Your task to perform on an android device: install app "Messenger Lite" Image 0: 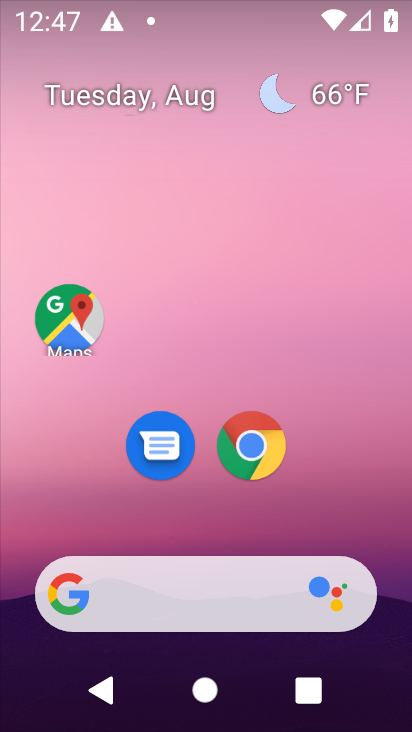
Step 0: drag from (348, 497) to (295, 76)
Your task to perform on an android device: install app "Messenger Lite" Image 1: 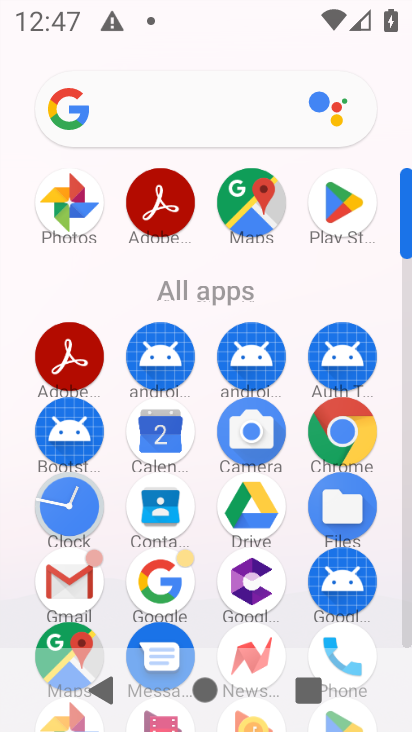
Step 1: click (328, 202)
Your task to perform on an android device: install app "Messenger Lite" Image 2: 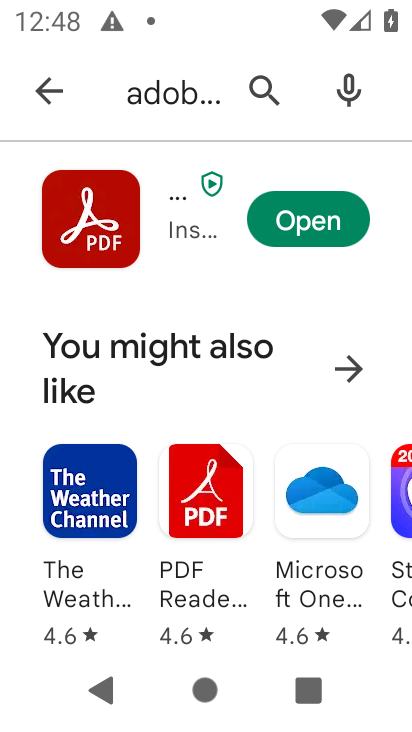
Step 2: click (258, 98)
Your task to perform on an android device: install app "Messenger Lite" Image 3: 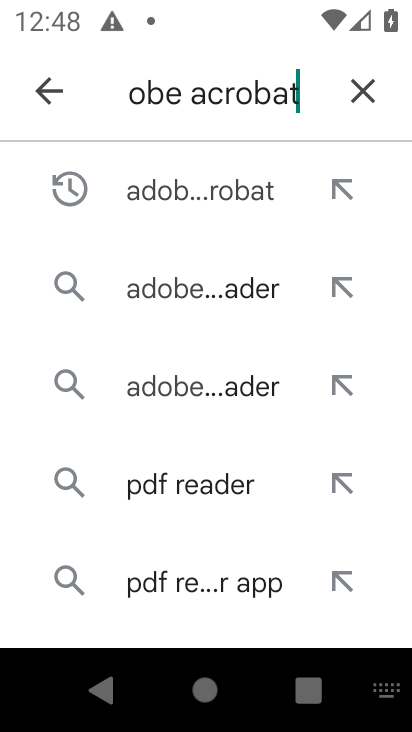
Step 3: click (353, 89)
Your task to perform on an android device: install app "Messenger Lite" Image 4: 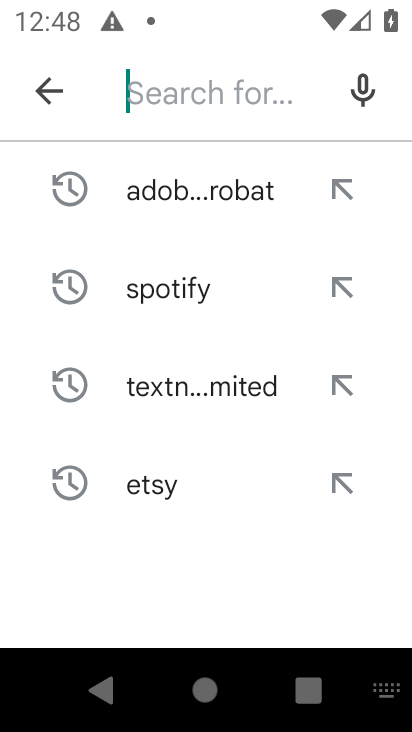
Step 4: type "messenger lite"
Your task to perform on an android device: install app "Messenger Lite" Image 5: 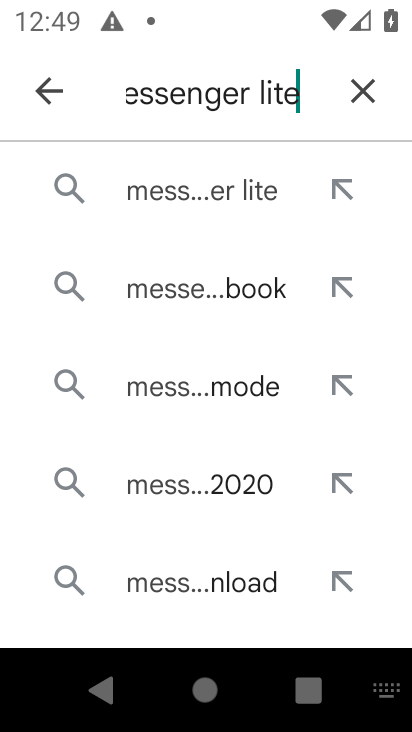
Step 5: click (195, 178)
Your task to perform on an android device: install app "Messenger Lite" Image 6: 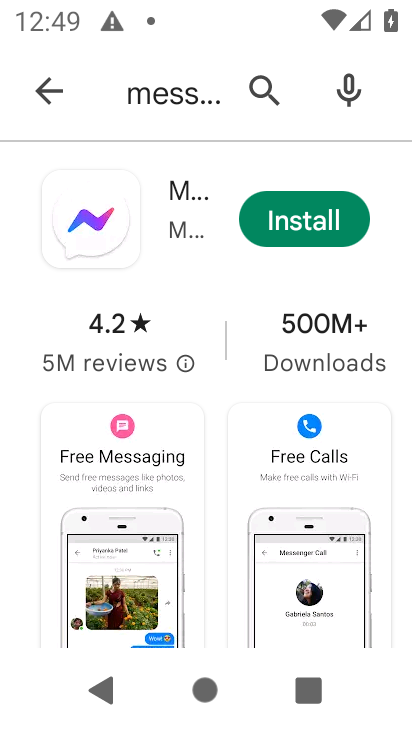
Step 6: click (257, 228)
Your task to perform on an android device: install app "Messenger Lite" Image 7: 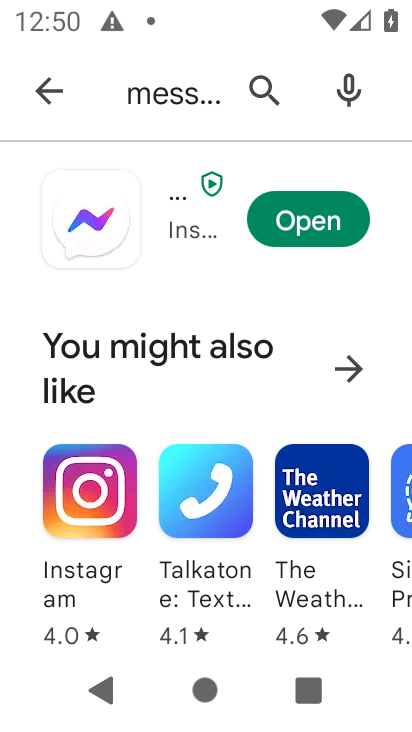
Step 7: click (257, 228)
Your task to perform on an android device: install app "Messenger Lite" Image 8: 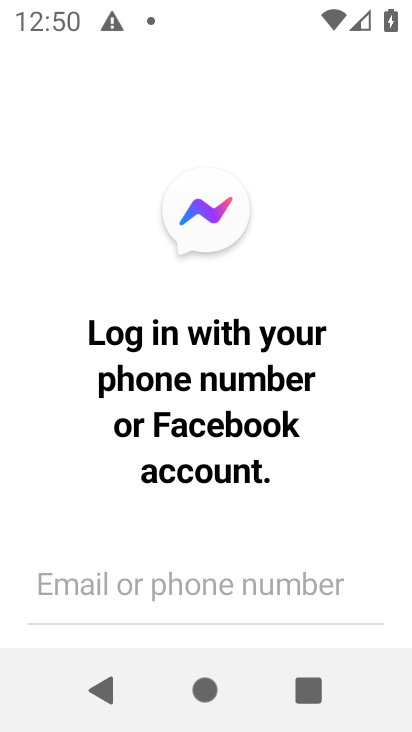
Step 8: task complete